Your task to perform on an android device: toggle improve location accuracy Image 0: 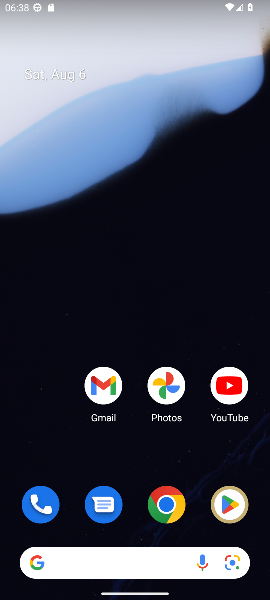
Step 0: drag from (94, 570) to (165, 276)
Your task to perform on an android device: toggle improve location accuracy Image 1: 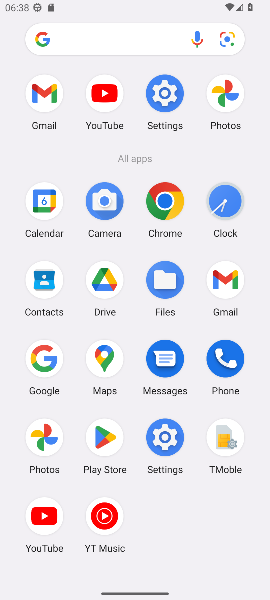
Step 1: click (164, 94)
Your task to perform on an android device: toggle improve location accuracy Image 2: 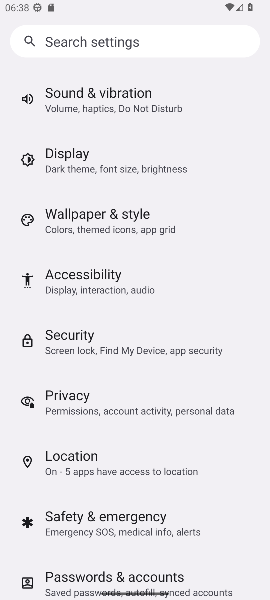
Step 2: drag from (141, 379) to (173, 299)
Your task to perform on an android device: toggle improve location accuracy Image 3: 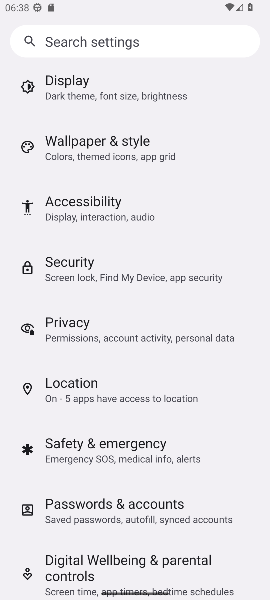
Step 3: drag from (124, 416) to (176, 336)
Your task to perform on an android device: toggle improve location accuracy Image 4: 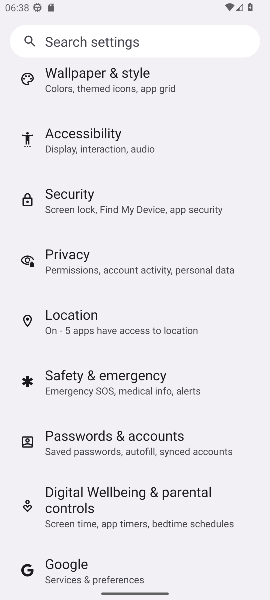
Step 4: drag from (131, 465) to (204, 376)
Your task to perform on an android device: toggle improve location accuracy Image 5: 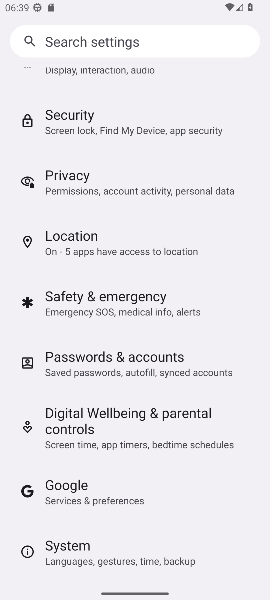
Step 5: drag from (125, 464) to (176, 382)
Your task to perform on an android device: toggle improve location accuracy Image 6: 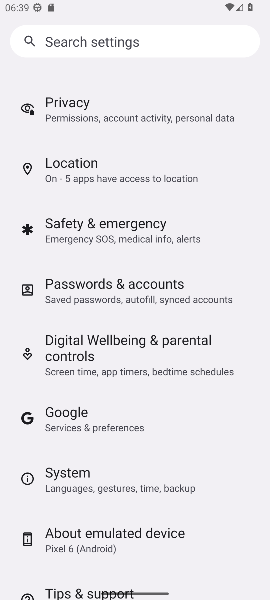
Step 6: drag from (112, 466) to (143, 391)
Your task to perform on an android device: toggle improve location accuracy Image 7: 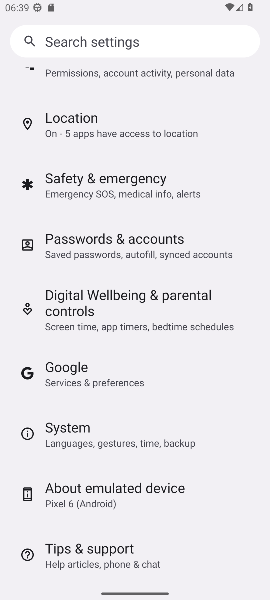
Step 7: click (130, 132)
Your task to perform on an android device: toggle improve location accuracy Image 8: 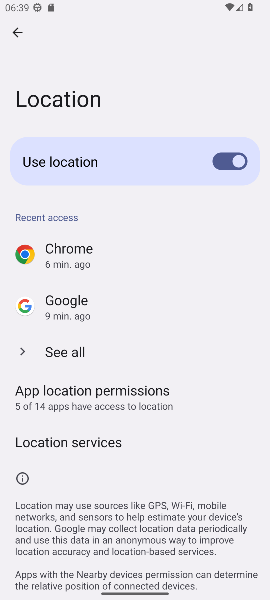
Step 8: click (98, 448)
Your task to perform on an android device: toggle improve location accuracy Image 9: 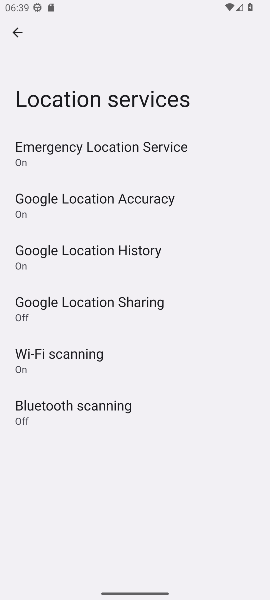
Step 9: click (152, 197)
Your task to perform on an android device: toggle improve location accuracy Image 10: 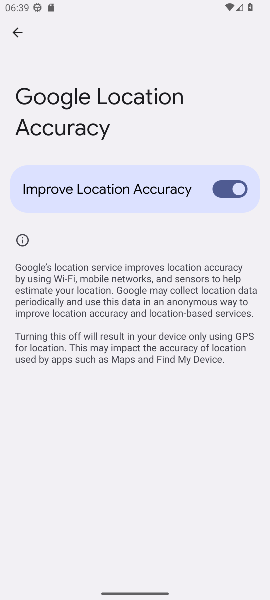
Step 10: click (219, 189)
Your task to perform on an android device: toggle improve location accuracy Image 11: 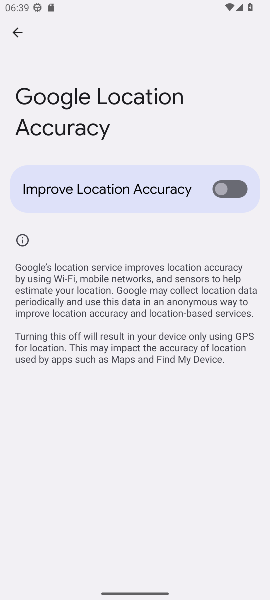
Step 11: task complete